Your task to perform on an android device: Open Youtube and go to the subscriptions tab Image 0: 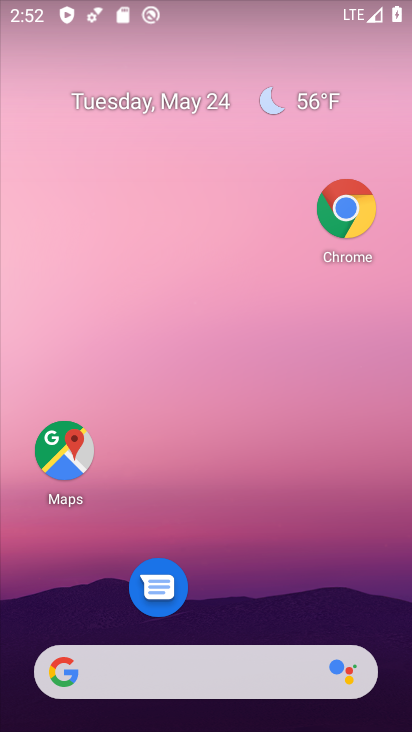
Step 0: drag from (267, 638) to (266, 209)
Your task to perform on an android device: Open Youtube and go to the subscriptions tab Image 1: 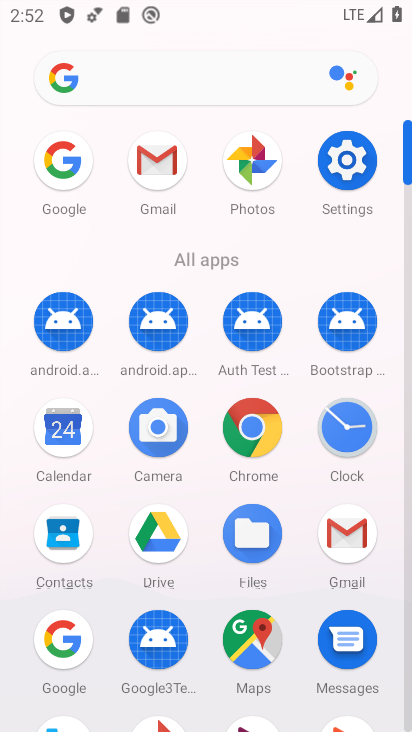
Step 1: drag from (300, 637) to (309, 205)
Your task to perform on an android device: Open Youtube and go to the subscriptions tab Image 2: 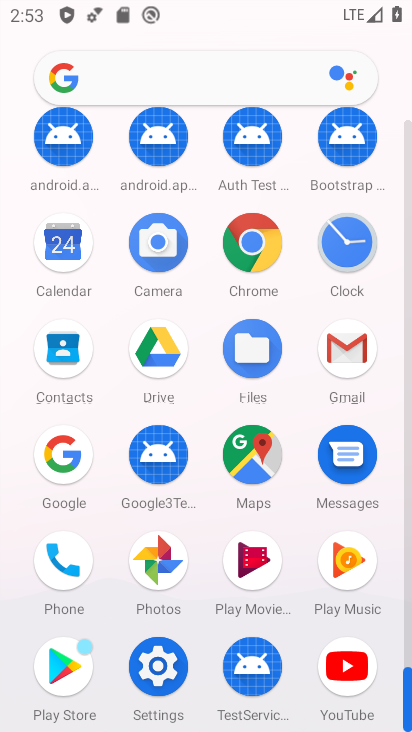
Step 2: click (347, 660)
Your task to perform on an android device: Open Youtube and go to the subscriptions tab Image 3: 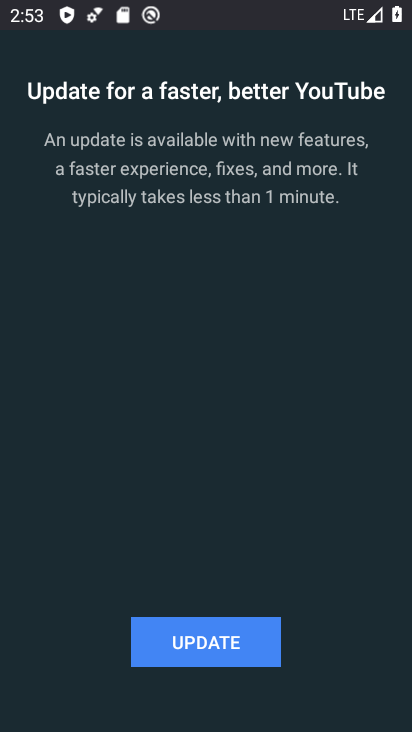
Step 3: click (208, 656)
Your task to perform on an android device: Open Youtube and go to the subscriptions tab Image 4: 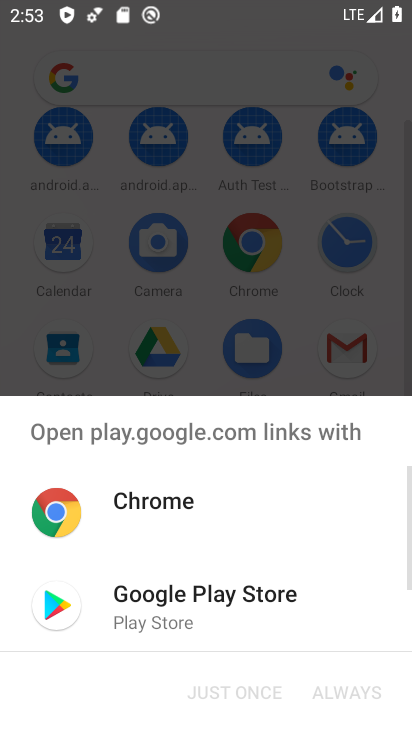
Step 4: click (190, 584)
Your task to perform on an android device: Open Youtube and go to the subscriptions tab Image 5: 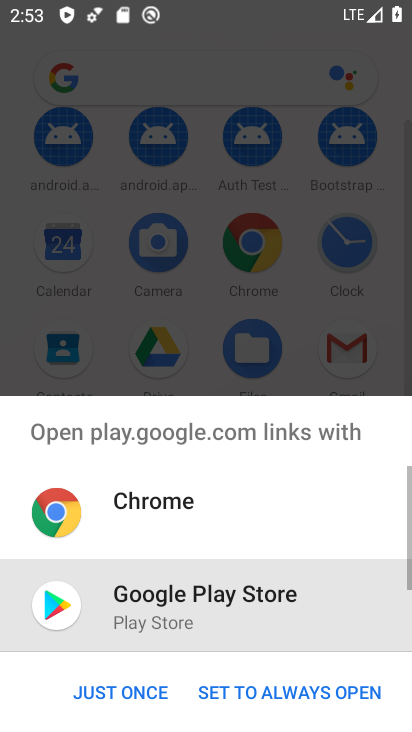
Step 5: click (123, 690)
Your task to perform on an android device: Open Youtube and go to the subscriptions tab Image 6: 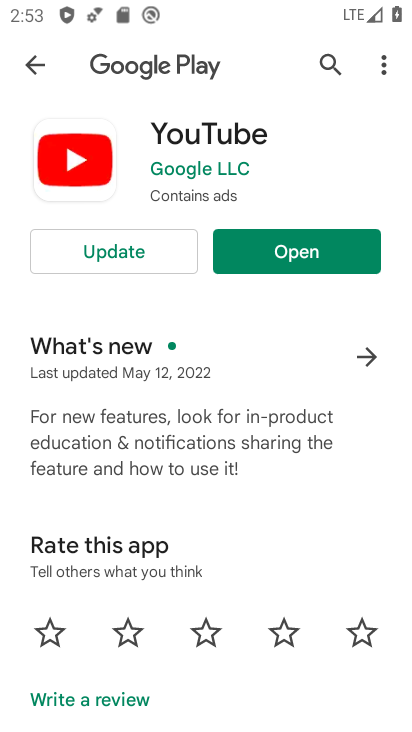
Step 6: click (138, 266)
Your task to perform on an android device: Open Youtube and go to the subscriptions tab Image 7: 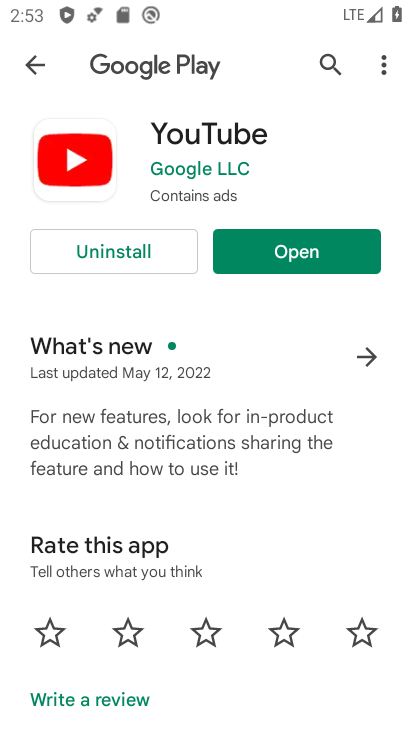
Step 7: click (352, 267)
Your task to perform on an android device: Open Youtube and go to the subscriptions tab Image 8: 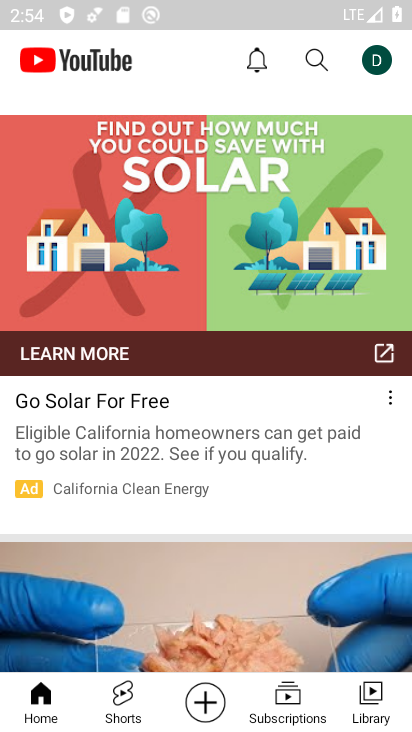
Step 8: click (292, 704)
Your task to perform on an android device: Open Youtube and go to the subscriptions tab Image 9: 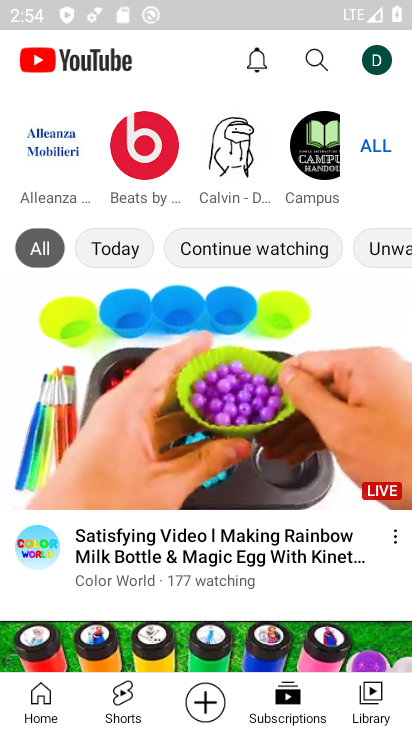
Step 9: task complete